Your task to perform on an android device: check google app version Image 0: 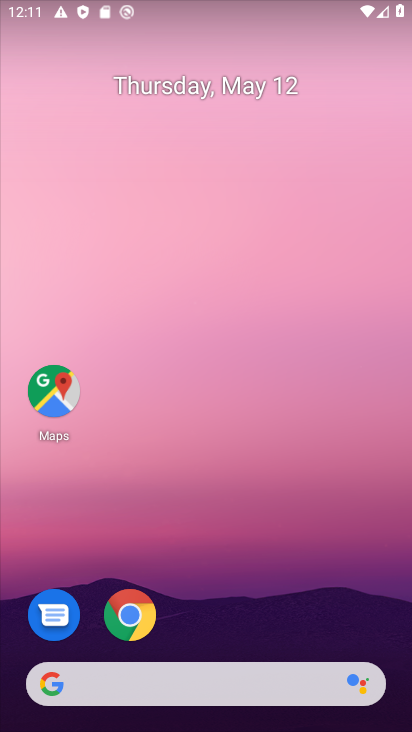
Step 0: drag from (254, 710) to (411, 218)
Your task to perform on an android device: check google app version Image 1: 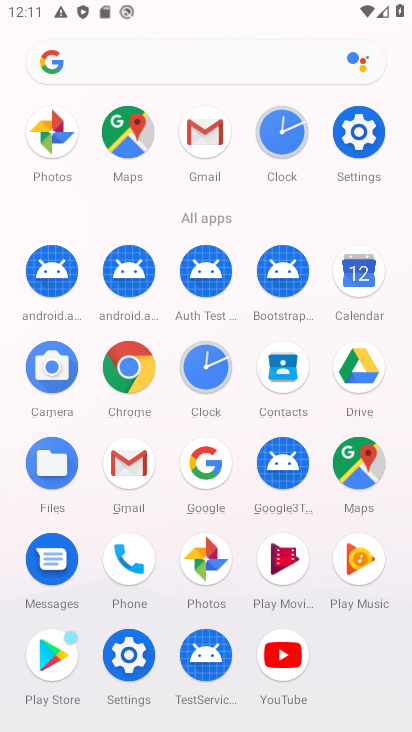
Step 1: click (81, 58)
Your task to perform on an android device: check google app version Image 2: 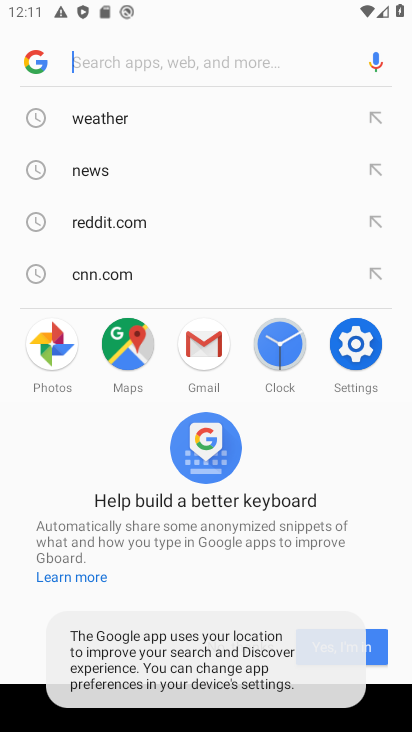
Step 2: click (53, 61)
Your task to perform on an android device: check google app version Image 3: 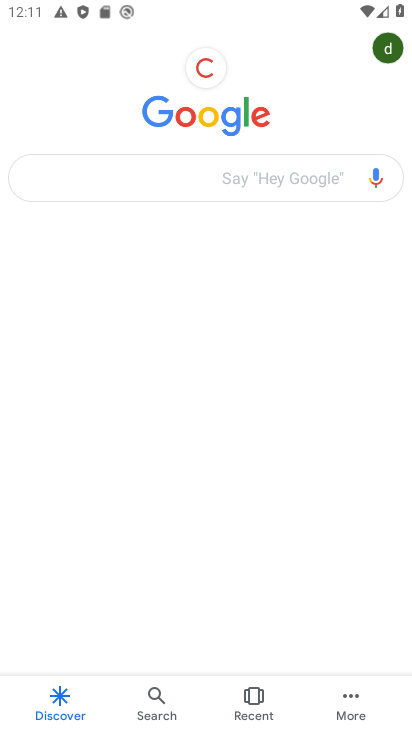
Step 3: task complete